Your task to perform on an android device: turn on notifications settings in the gmail app Image 0: 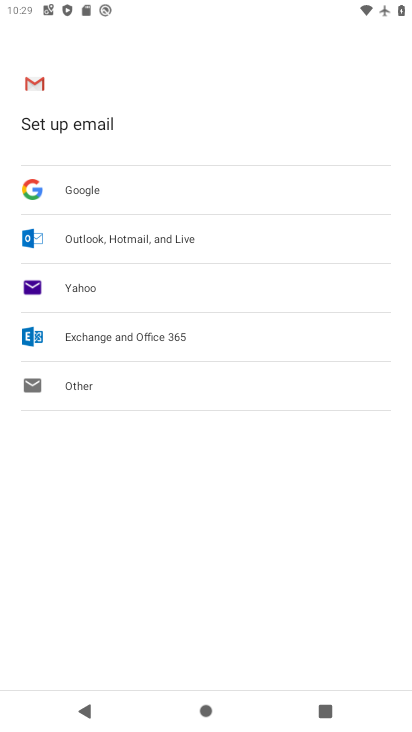
Step 0: press home button
Your task to perform on an android device: turn on notifications settings in the gmail app Image 1: 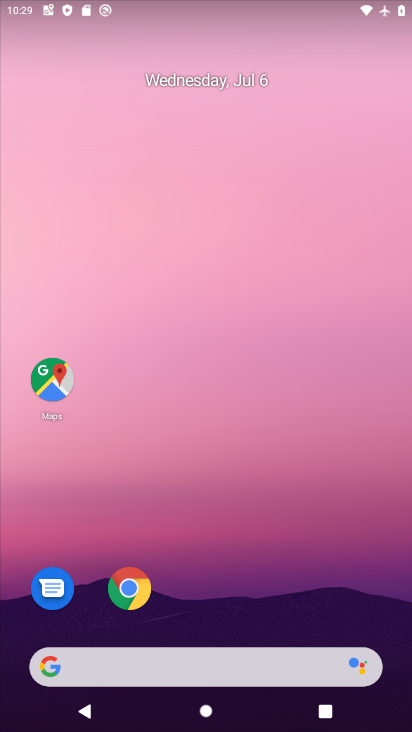
Step 1: drag from (195, 600) to (229, 167)
Your task to perform on an android device: turn on notifications settings in the gmail app Image 2: 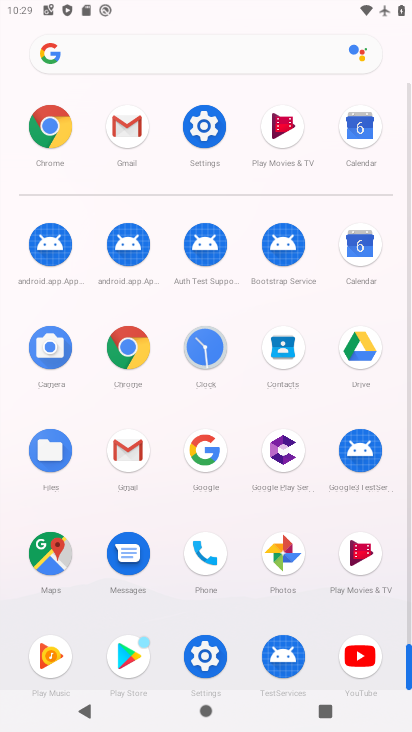
Step 2: click (113, 121)
Your task to perform on an android device: turn on notifications settings in the gmail app Image 3: 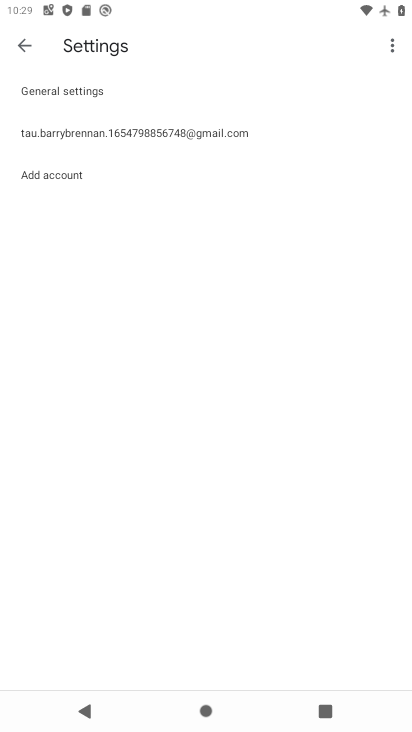
Step 3: click (26, 44)
Your task to perform on an android device: turn on notifications settings in the gmail app Image 4: 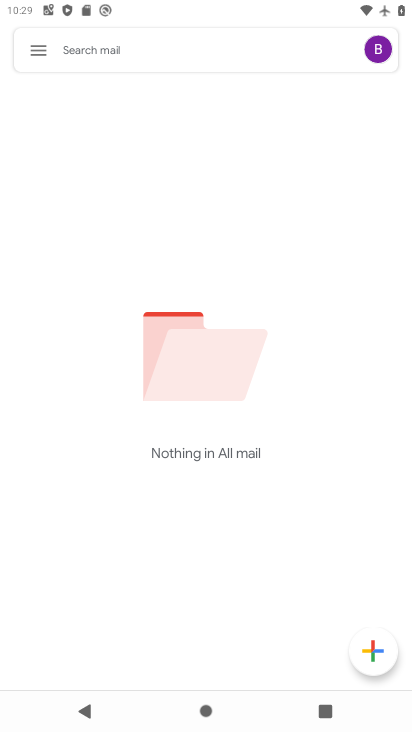
Step 4: click (28, 48)
Your task to perform on an android device: turn on notifications settings in the gmail app Image 5: 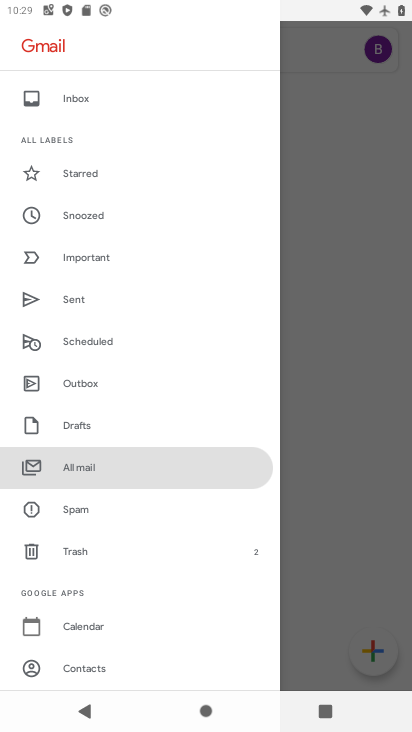
Step 5: drag from (190, 601) to (143, 265)
Your task to perform on an android device: turn on notifications settings in the gmail app Image 6: 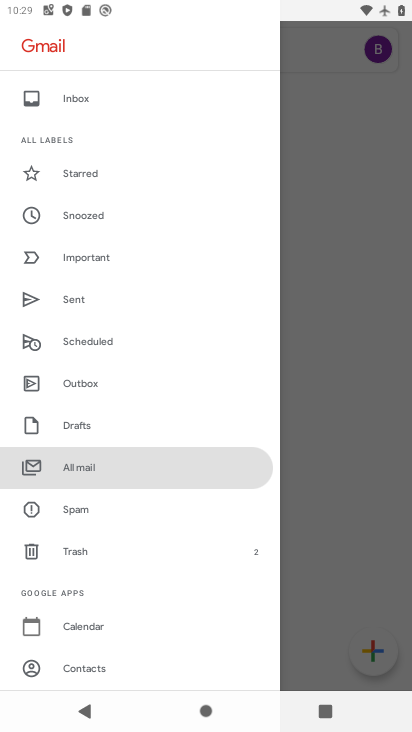
Step 6: drag from (161, 615) to (189, 137)
Your task to perform on an android device: turn on notifications settings in the gmail app Image 7: 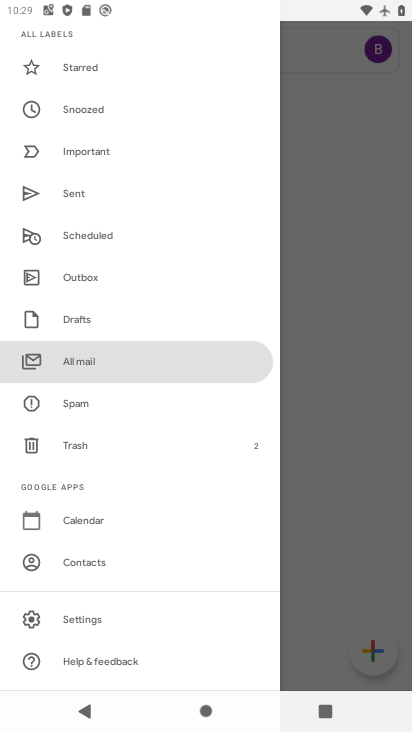
Step 7: click (90, 615)
Your task to perform on an android device: turn on notifications settings in the gmail app Image 8: 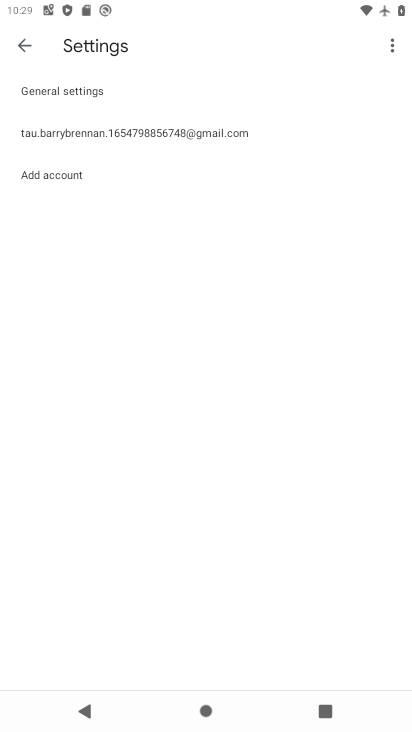
Step 8: click (65, 79)
Your task to perform on an android device: turn on notifications settings in the gmail app Image 9: 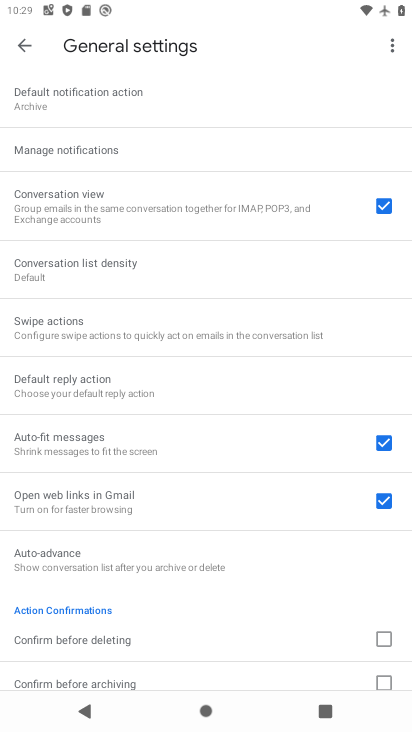
Step 9: drag from (91, 543) to (177, 693)
Your task to perform on an android device: turn on notifications settings in the gmail app Image 10: 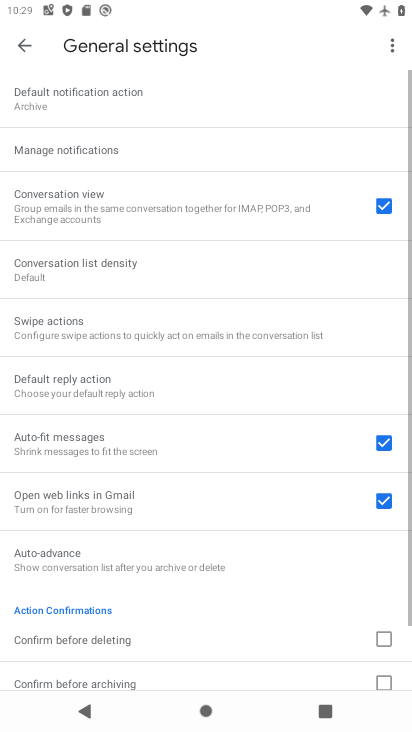
Step 10: click (38, 43)
Your task to perform on an android device: turn on notifications settings in the gmail app Image 11: 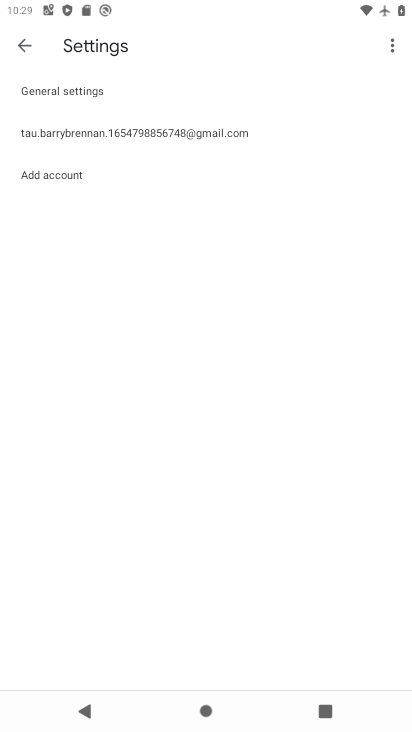
Step 11: click (105, 141)
Your task to perform on an android device: turn on notifications settings in the gmail app Image 12: 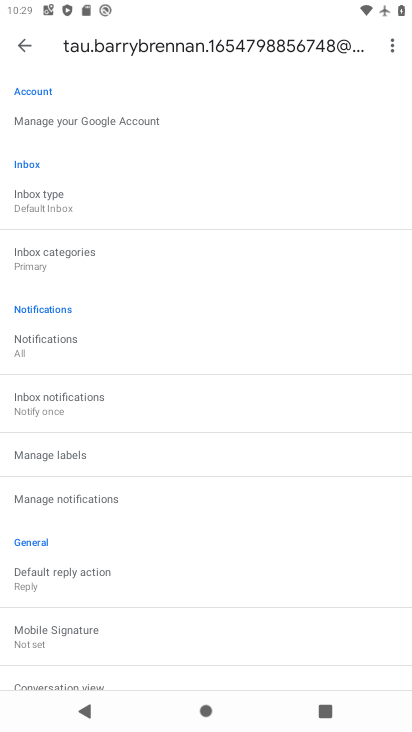
Step 12: click (73, 336)
Your task to perform on an android device: turn on notifications settings in the gmail app Image 13: 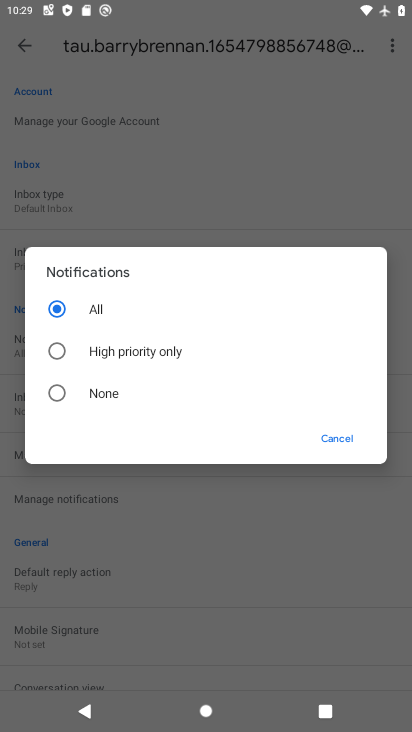
Step 13: task complete